Your task to perform on an android device: delete the emails in spam in the gmail app Image 0: 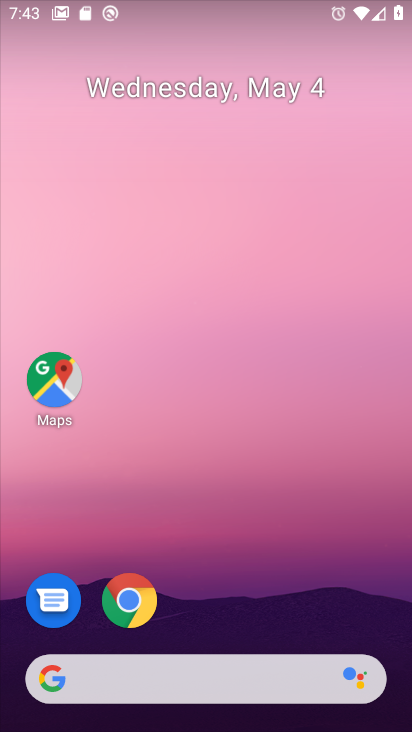
Step 0: drag from (387, 0) to (407, 177)
Your task to perform on an android device: delete the emails in spam in the gmail app Image 1: 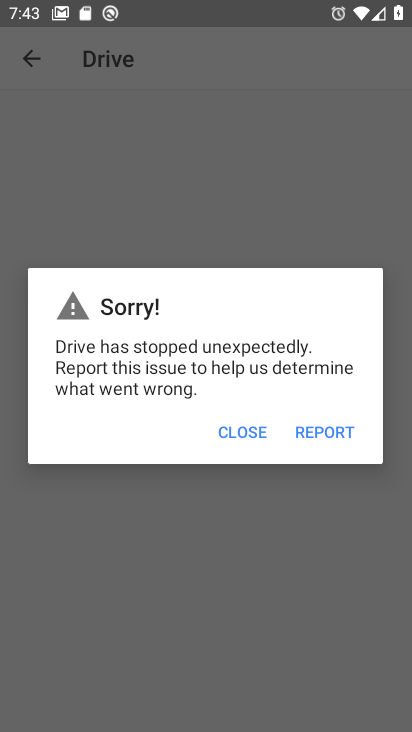
Step 1: press home button
Your task to perform on an android device: delete the emails in spam in the gmail app Image 2: 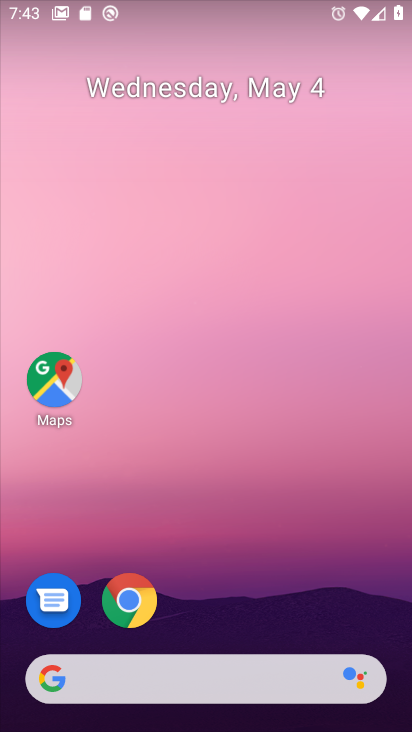
Step 2: drag from (198, 652) to (275, 25)
Your task to perform on an android device: delete the emails in spam in the gmail app Image 3: 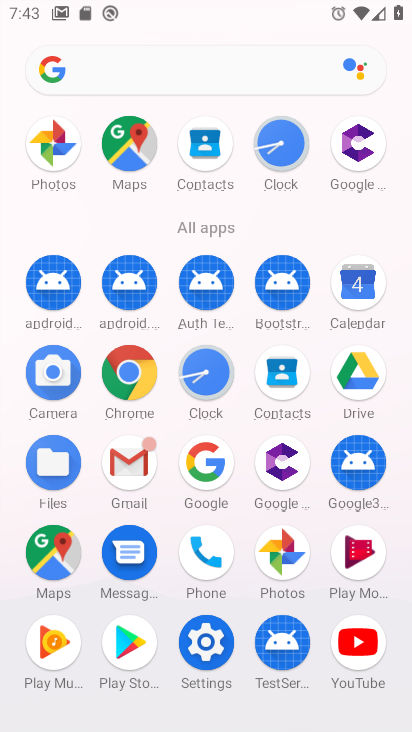
Step 3: click (131, 462)
Your task to perform on an android device: delete the emails in spam in the gmail app Image 4: 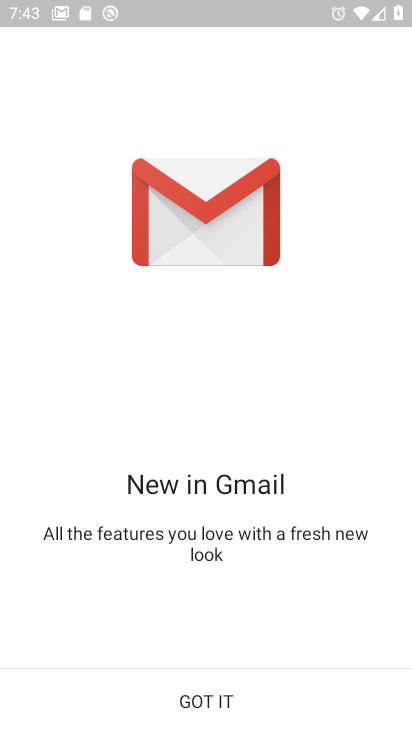
Step 4: click (188, 682)
Your task to perform on an android device: delete the emails in spam in the gmail app Image 5: 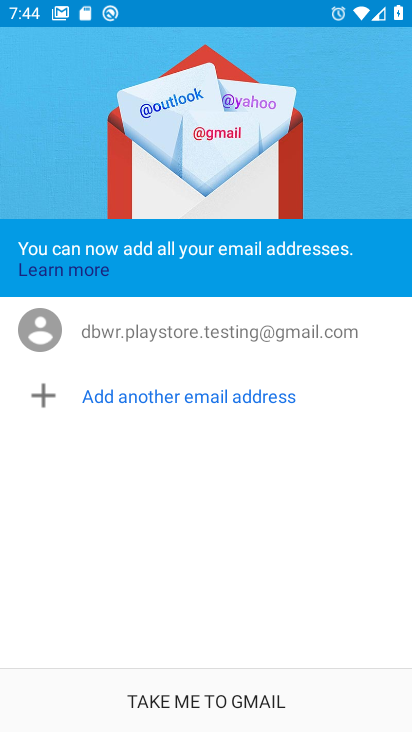
Step 5: click (185, 687)
Your task to perform on an android device: delete the emails in spam in the gmail app Image 6: 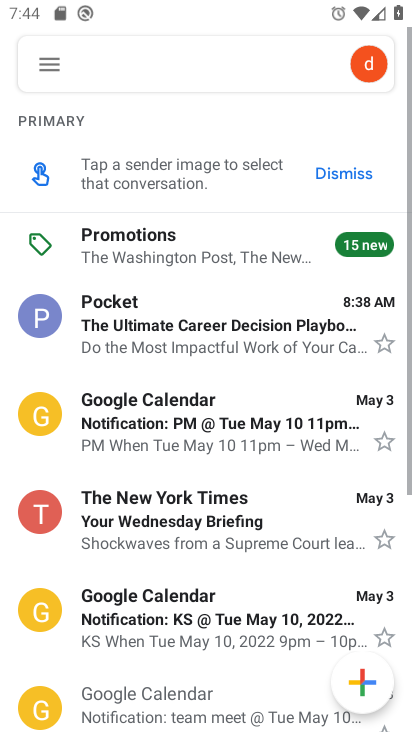
Step 6: click (53, 69)
Your task to perform on an android device: delete the emails in spam in the gmail app Image 7: 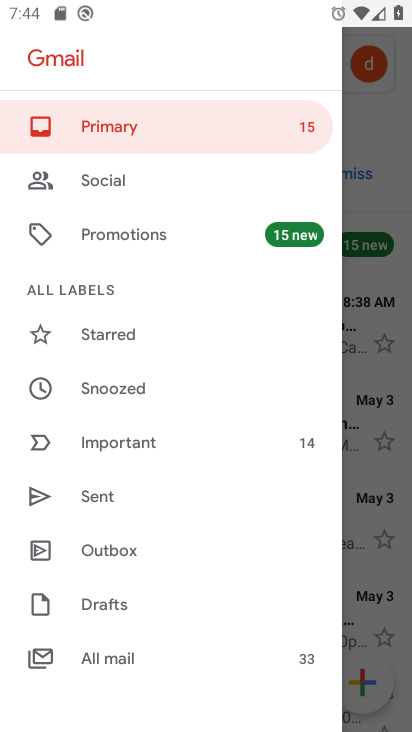
Step 7: drag from (97, 565) to (172, 218)
Your task to perform on an android device: delete the emails in spam in the gmail app Image 8: 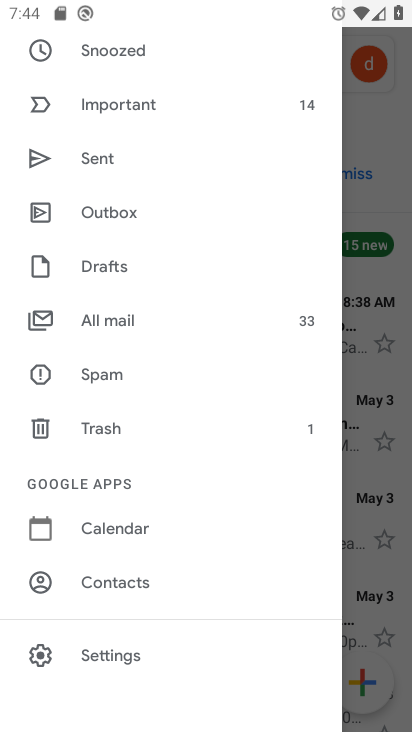
Step 8: click (112, 369)
Your task to perform on an android device: delete the emails in spam in the gmail app Image 9: 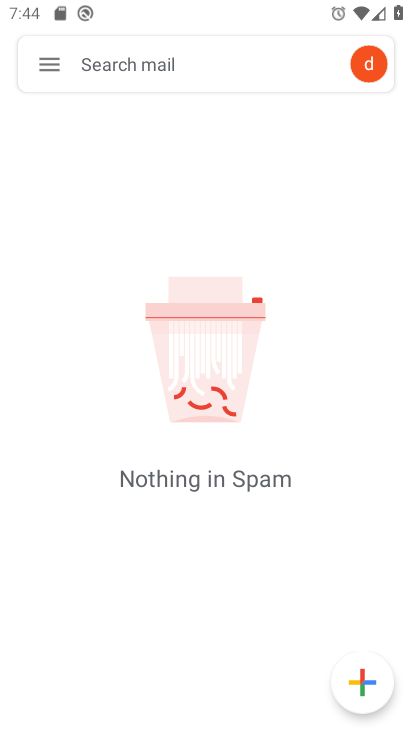
Step 9: task complete